Your task to perform on an android device: turn smart compose on in the gmail app Image 0: 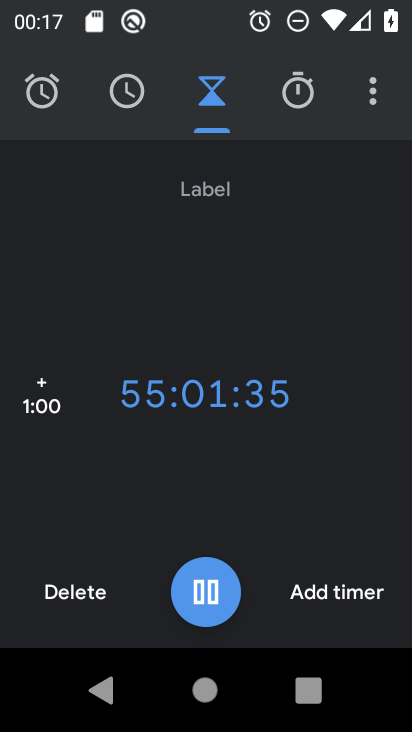
Step 0: press home button
Your task to perform on an android device: turn smart compose on in the gmail app Image 1: 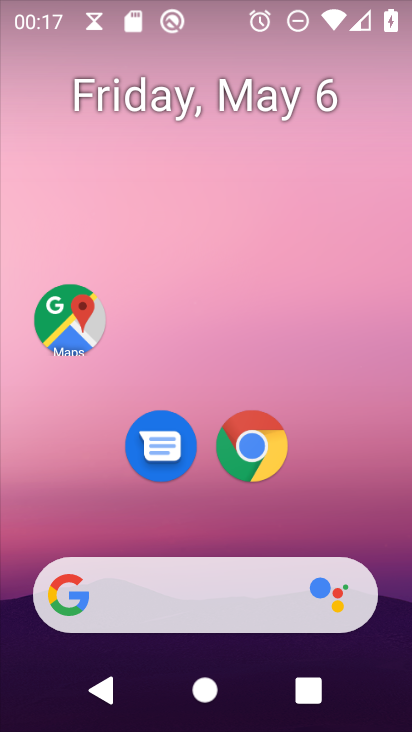
Step 1: drag from (297, 639) to (387, 215)
Your task to perform on an android device: turn smart compose on in the gmail app Image 2: 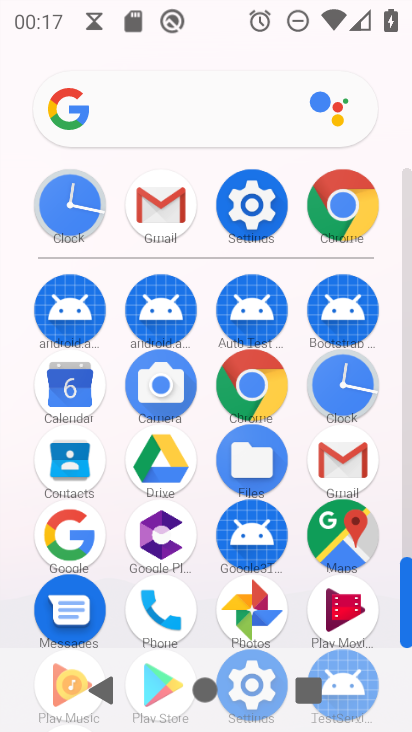
Step 2: click (332, 468)
Your task to perform on an android device: turn smart compose on in the gmail app Image 3: 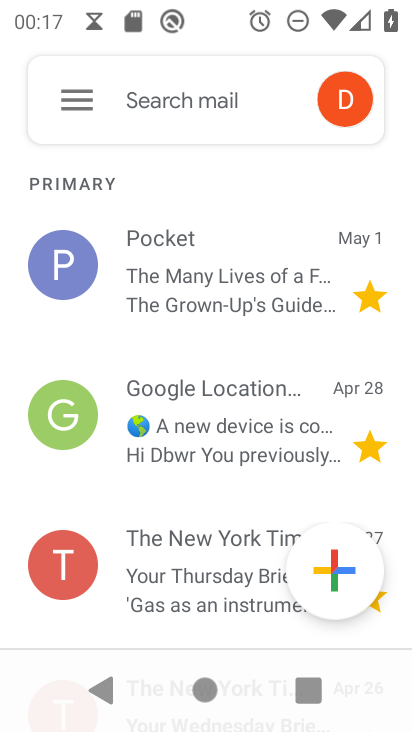
Step 3: click (68, 109)
Your task to perform on an android device: turn smart compose on in the gmail app Image 4: 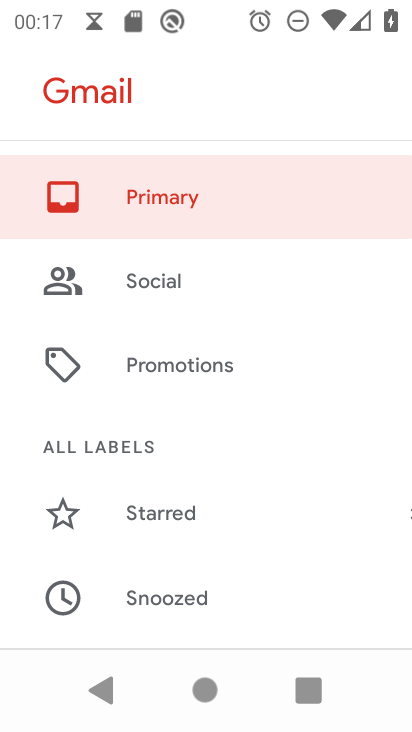
Step 4: drag from (166, 541) to (280, 305)
Your task to perform on an android device: turn smart compose on in the gmail app Image 5: 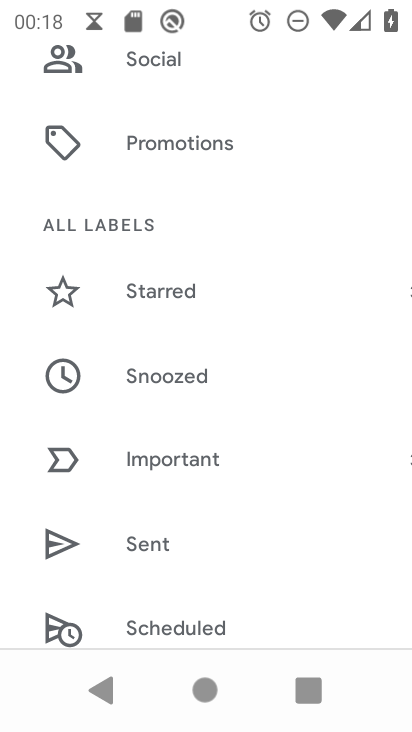
Step 5: drag from (183, 591) to (304, 279)
Your task to perform on an android device: turn smart compose on in the gmail app Image 6: 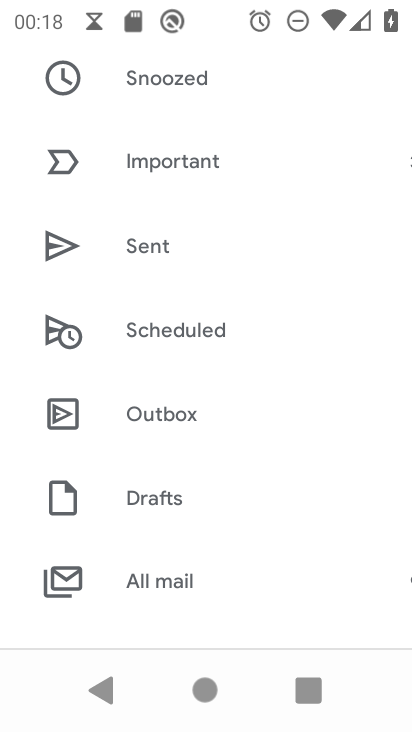
Step 6: drag from (137, 612) to (260, 183)
Your task to perform on an android device: turn smart compose on in the gmail app Image 7: 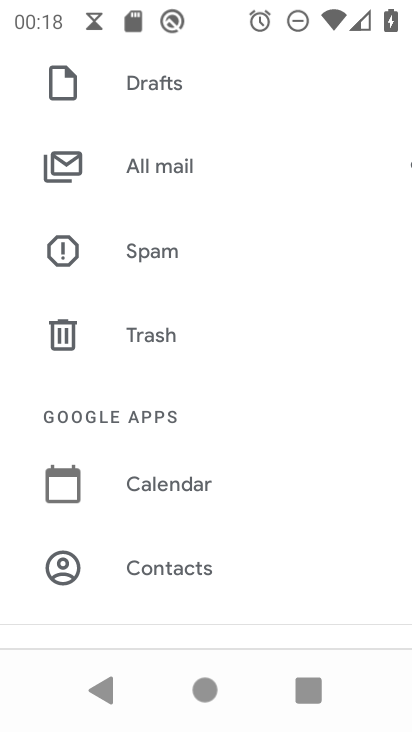
Step 7: drag from (141, 573) to (234, 303)
Your task to perform on an android device: turn smart compose on in the gmail app Image 8: 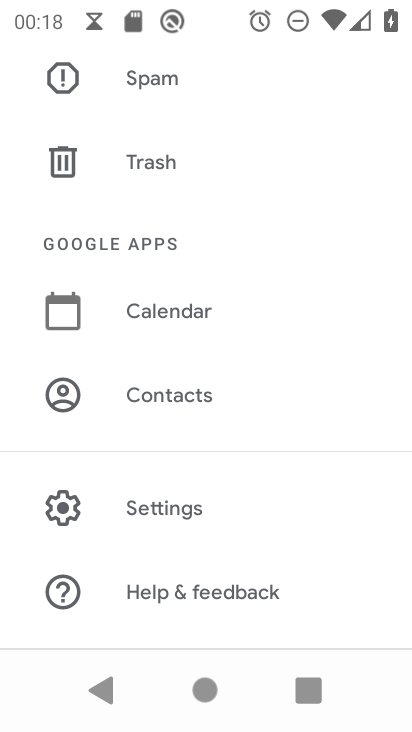
Step 8: click (167, 506)
Your task to perform on an android device: turn smart compose on in the gmail app Image 9: 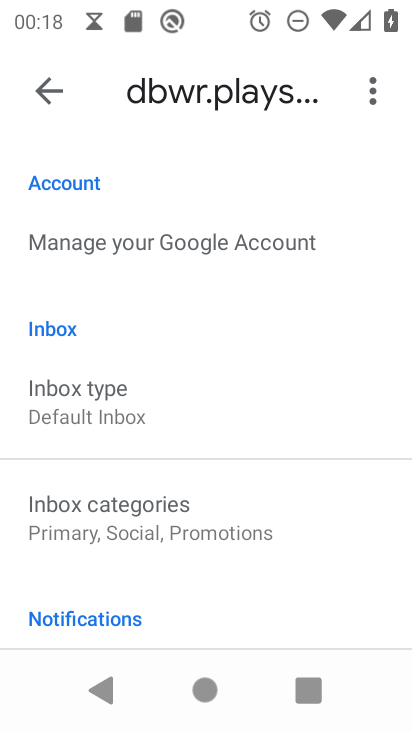
Step 9: drag from (151, 548) to (220, 307)
Your task to perform on an android device: turn smart compose on in the gmail app Image 10: 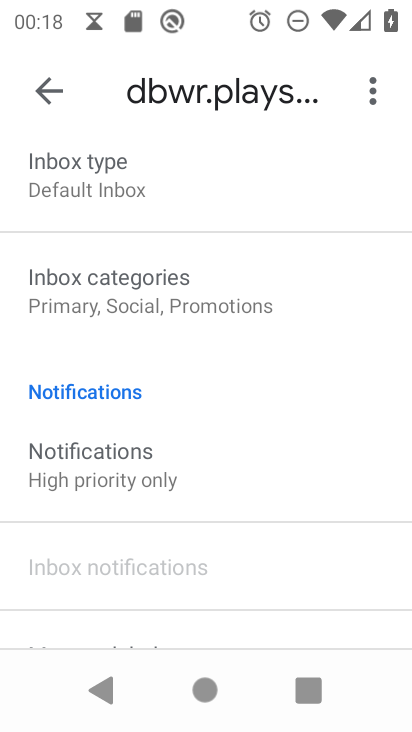
Step 10: drag from (175, 547) to (271, 251)
Your task to perform on an android device: turn smart compose on in the gmail app Image 11: 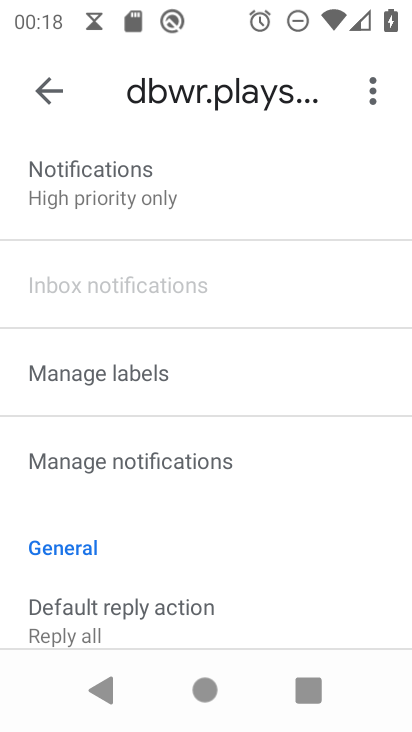
Step 11: drag from (197, 574) to (228, 308)
Your task to perform on an android device: turn smart compose on in the gmail app Image 12: 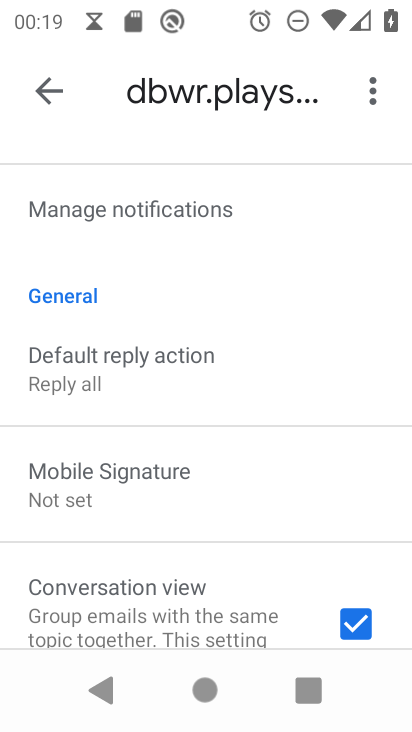
Step 12: drag from (189, 513) to (267, 235)
Your task to perform on an android device: turn smart compose on in the gmail app Image 13: 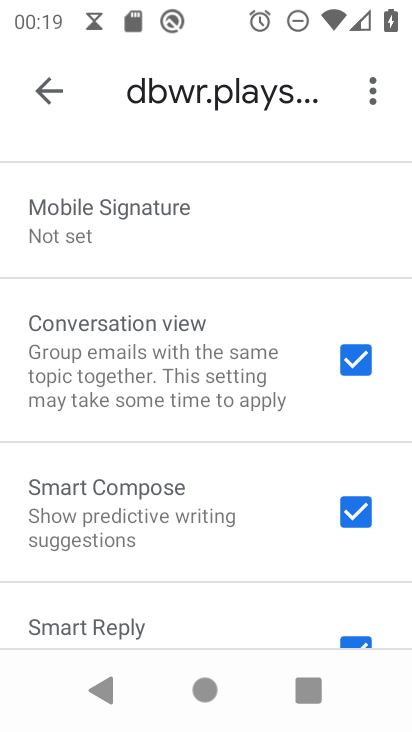
Step 13: click (360, 515)
Your task to perform on an android device: turn smart compose on in the gmail app Image 14: 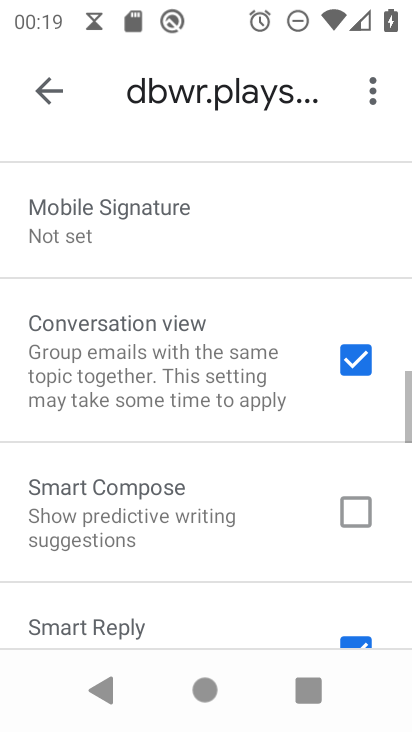
Step 14: click (360, 515)
Your task to perform on an android device: turn smart compose on in the gmail app Image 15: 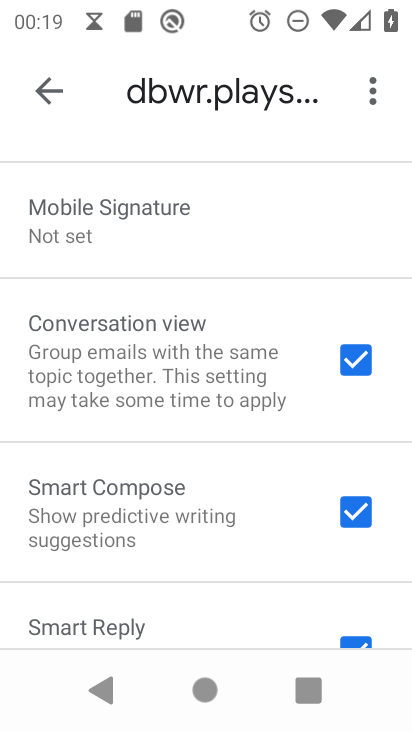
Step 15: task complete